Your task to perform on an android device: toggle data saver in the chrome app Image 0: 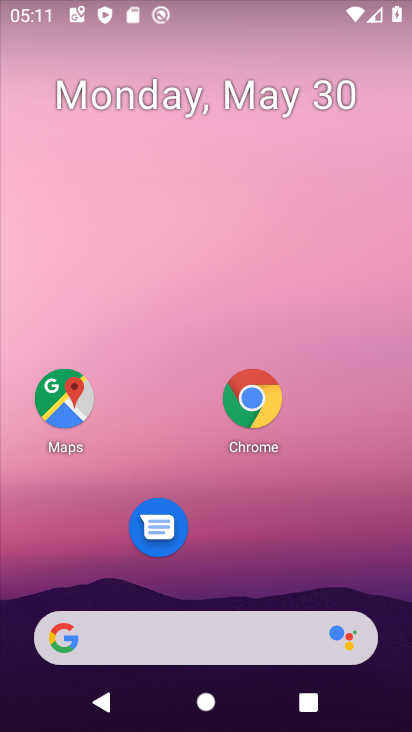
Step 0: click (253, 395)
Your task to perform on an android device: toggle data saver in the chrome app Image 1: 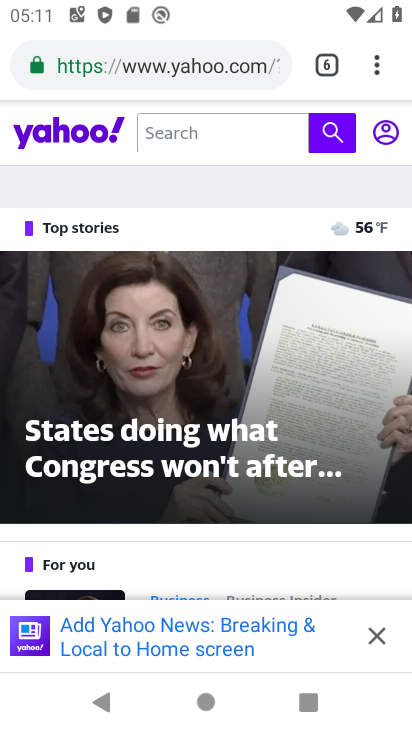
Step 1: click (378, 72)
Your task to perform on an android device: toggle data saver in the chrome app Image 2: 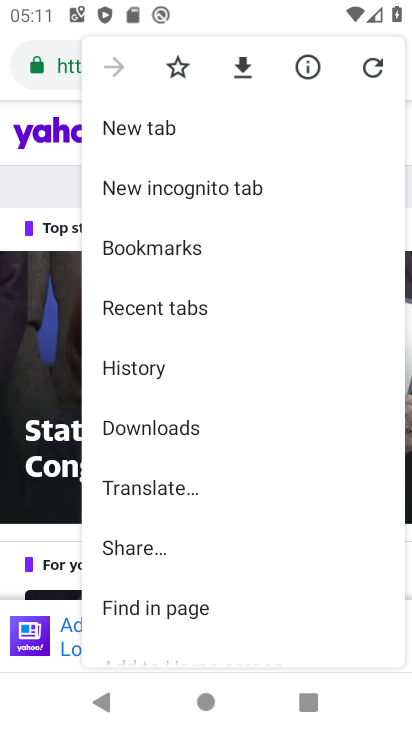
Step 2: drag from (164, 611) to (161, 132)
Your task to perform on an android device: toggle data saver in the chrome app Image 3: 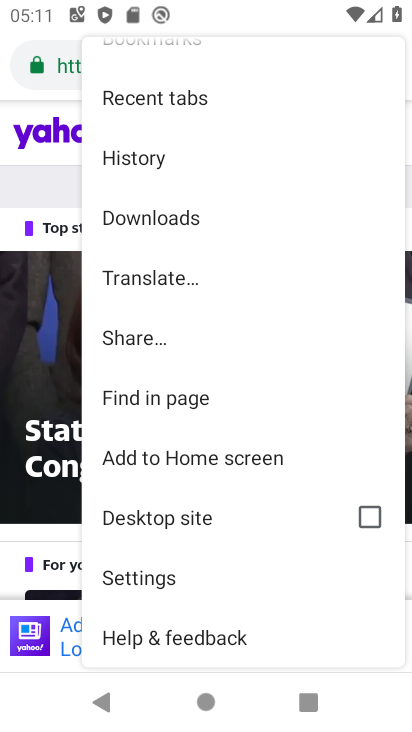
Step 3: click (145, 573)
Your task to perform on an android device: toggle data saver in the chrome app Image 4: 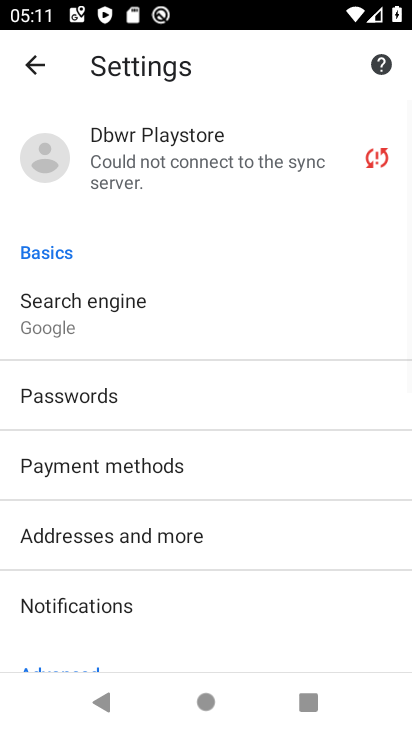
Step 4: drag from (146, 628) to (151, 232)
Your task to perform on an android device: toggle data saver in the chrome app Image 5: 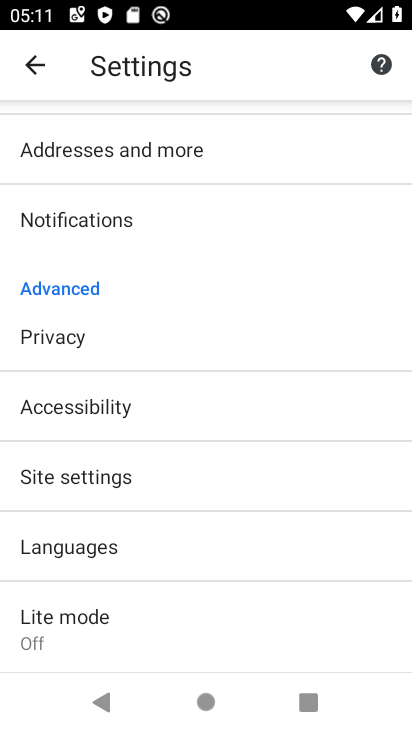
Step 5: click (69, 619)
Your task to perform on an android device: toggle data saver in the chrome app Image 6: 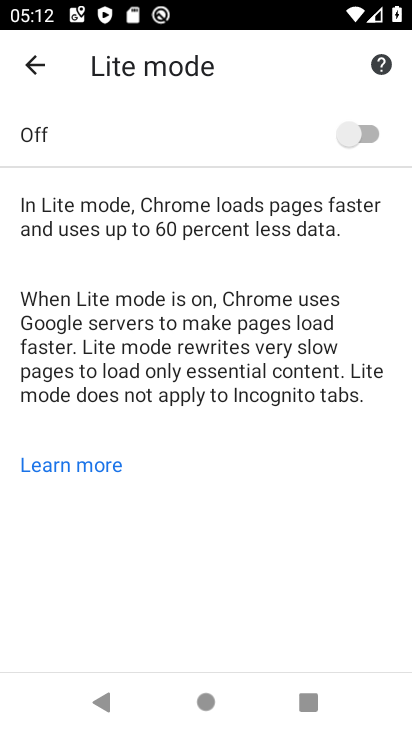
Step 6: click (365, 133)
Your task to perform on an android device: toggle data saver in the chrome app Image 7: 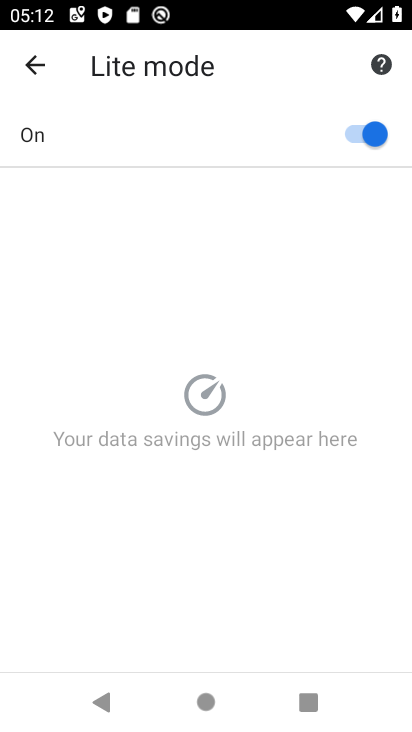
Step 7: task complete